Your task to perform on an android device: Open Wikipedia Image 0: 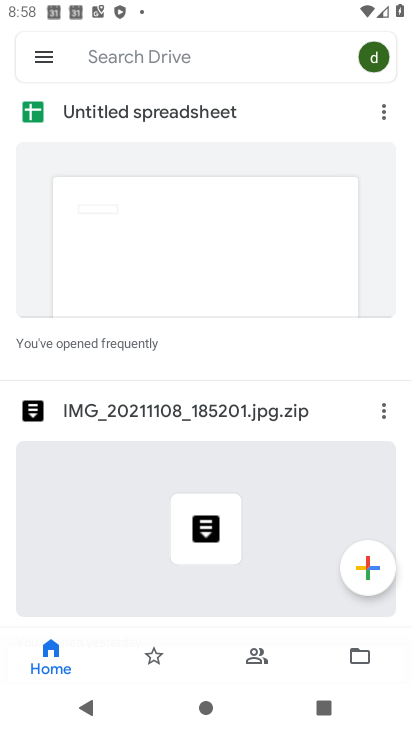
Step 0: press home button
Your task to perform on an android device: Open Wikipedia Image 1: 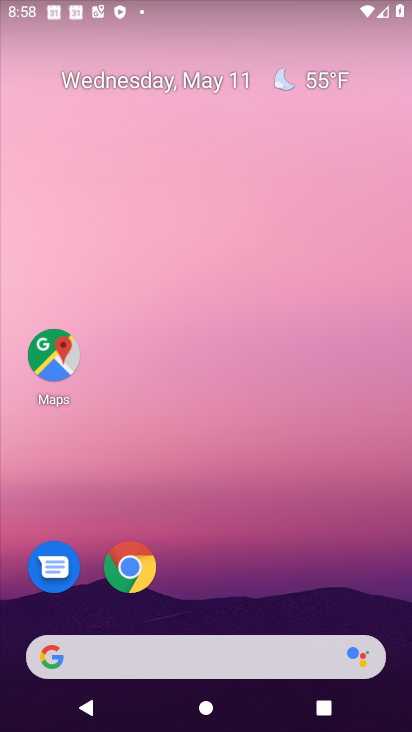
Step 1: click (139, 579)
Your task to perform on an android device: Open Wikipedia Image 2: 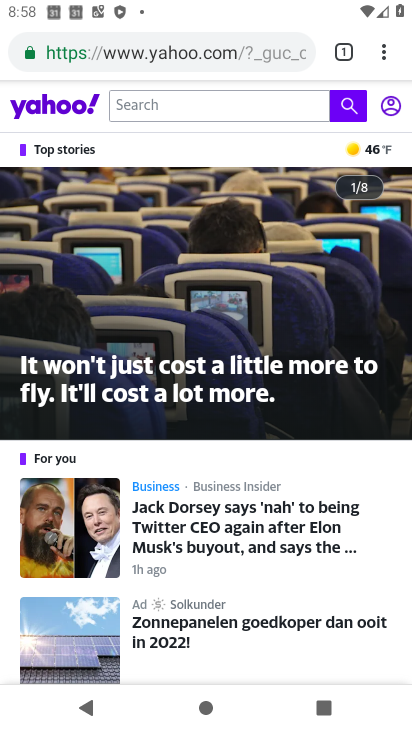
Step 2: click (207, 43)
Your task to perform on an android device: Open Wikipedia Image 3: 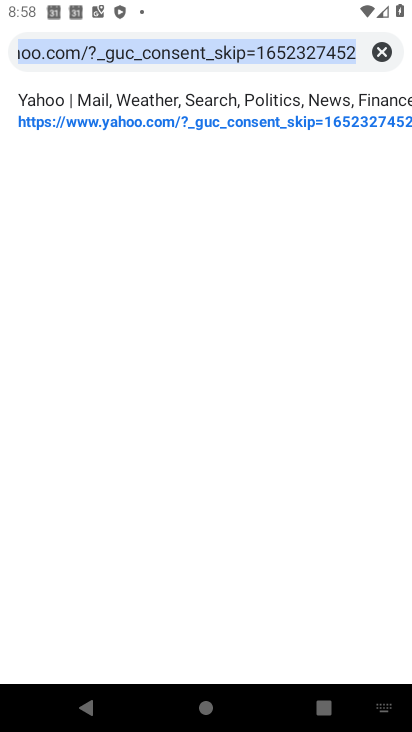
Step 3: type "wwikipedia"
Your task to perform on an android device: Open Wikipedia Image 4: 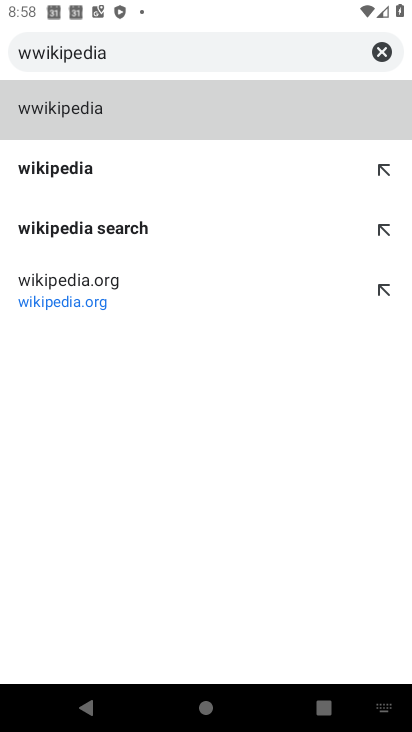
Step 4: click (52, 112)
Your task to perform on an android device: Open Wikipedia Image 5: 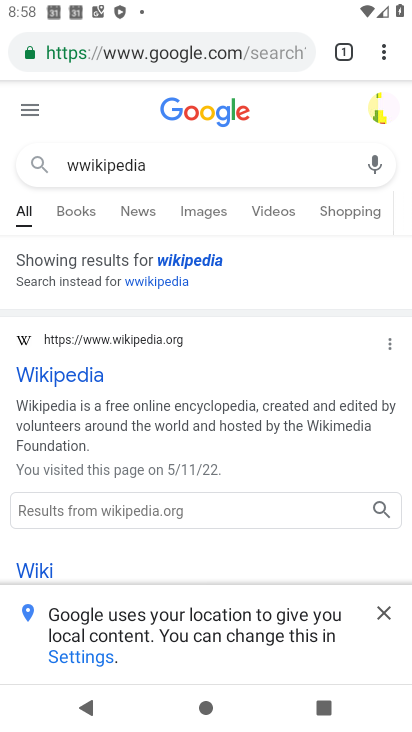
Step 5: click (385, 616)
Your task to perform on an android device: Open Wikipedia Image 6: 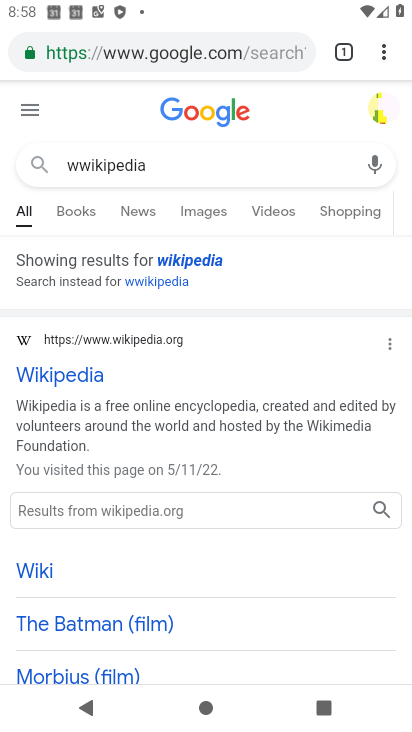
Step 6: task complete